Your task to perform on an android device: Check the news Image 0: 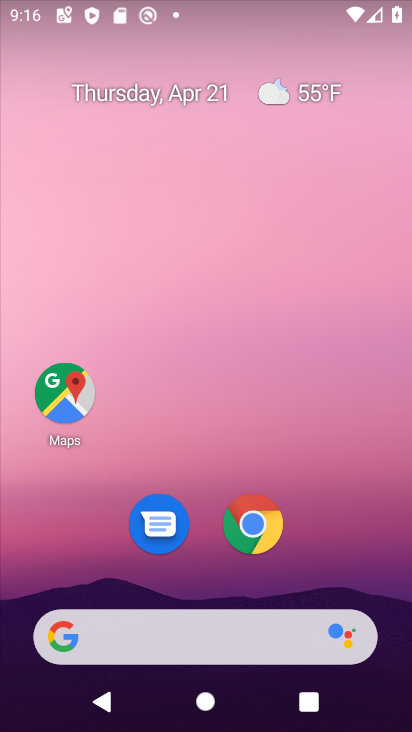
Step 0: drag from (308, 551) to (313, 79)
Your task to perform on an android device: Check the news Image 1: 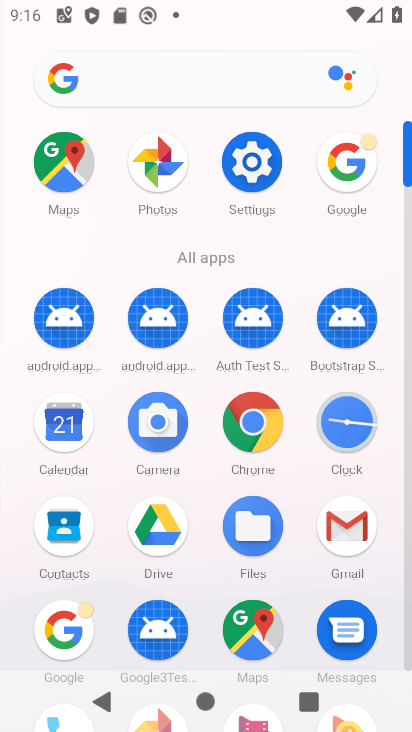
Step 1: click (56, 621)
Your task to perform on an android device: Check the news Image 2: 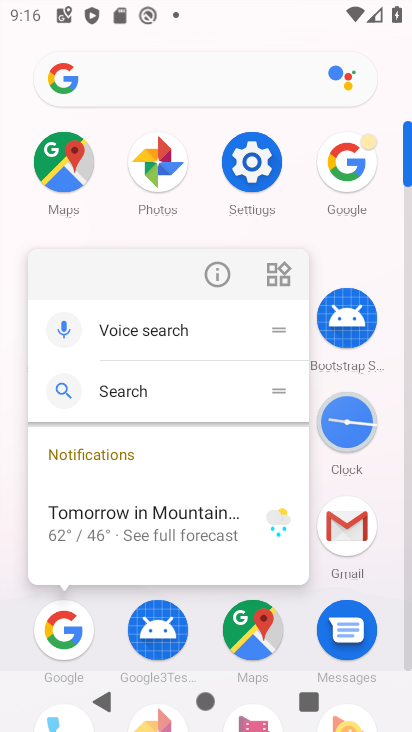
Step 2: click (56, 621)
Your task to perform on an android device: Check the news Image 3: 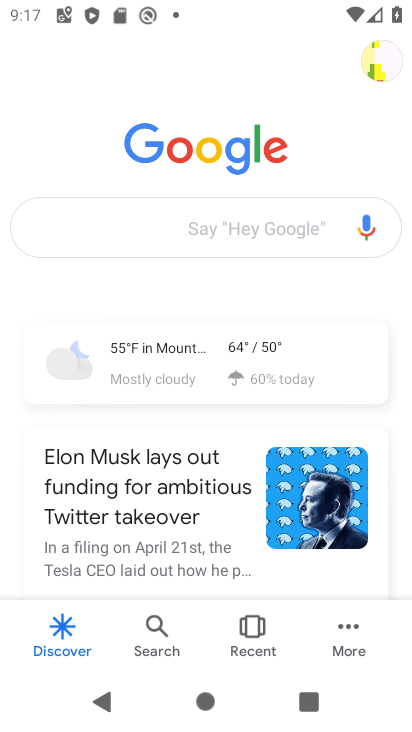
Step 3: task complete